Your task to perform on an android device: find which apps use the phone's location Image 0: 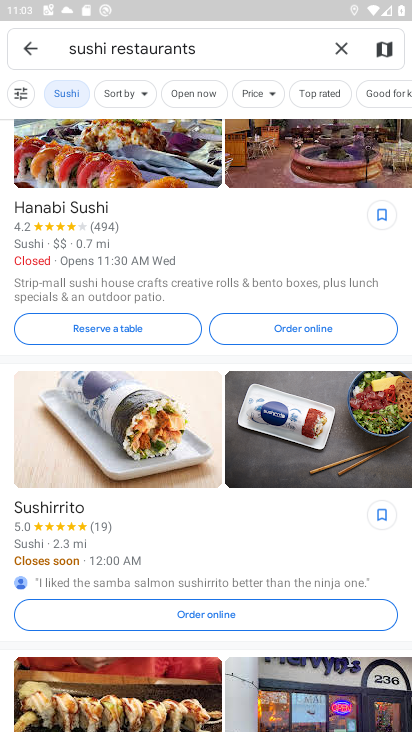
Step 0: press home button
Your task to perform on an android device: find which apps use the phone's location Image 1: 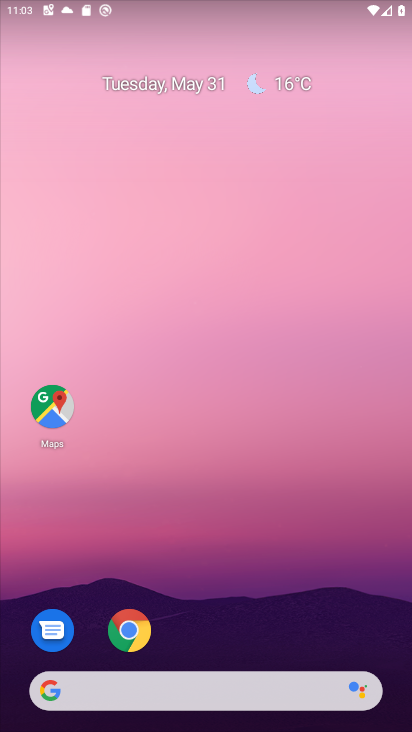
Step 1: drag from (307, 549) to (298, 132)
Your task to perform on an android device: find which apps use the phone's location Image 2: 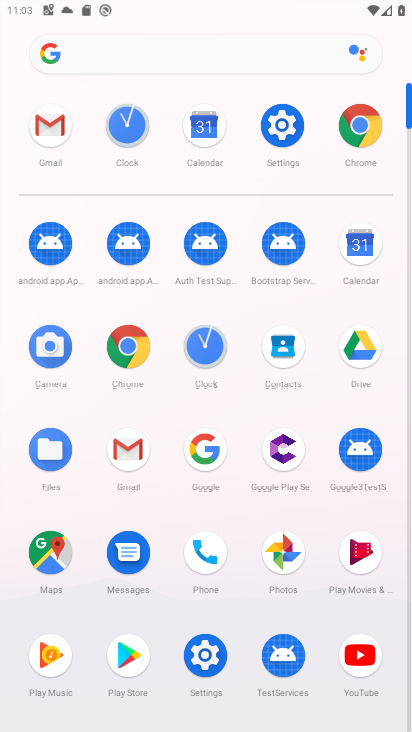
Step 2: click (273, 131)
Your task to perform on an android device: find which apps use the phone's location Image 3: 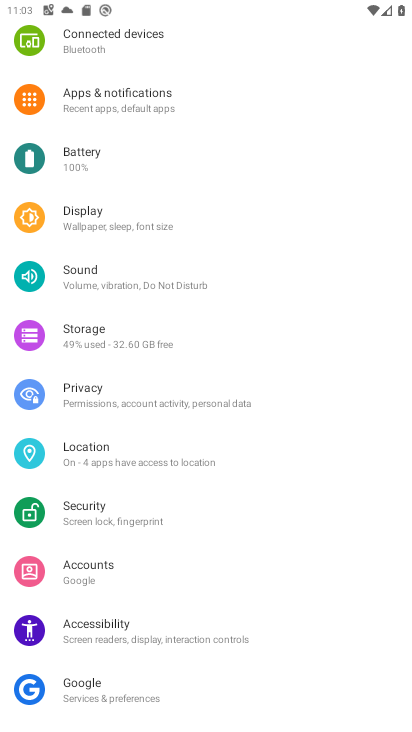
Step 3: drag from (216, 562) to (303, 238)
Your task to perform on an android device: find which apps use the phone's location Image 4: 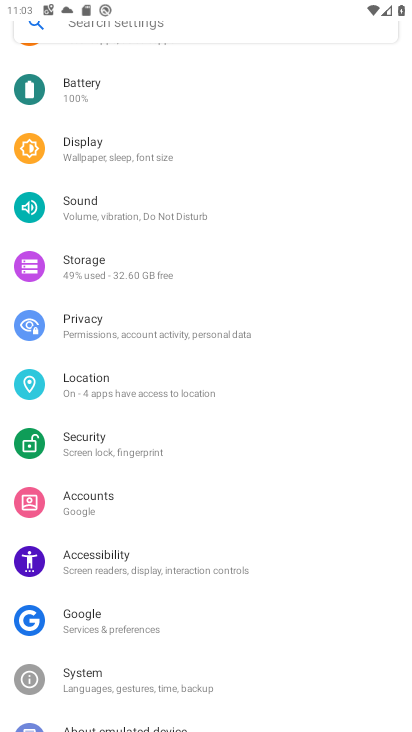
Step 4: click (95, 390)
Your task to perform on an android device: find which apps use the phone's location Image 5: 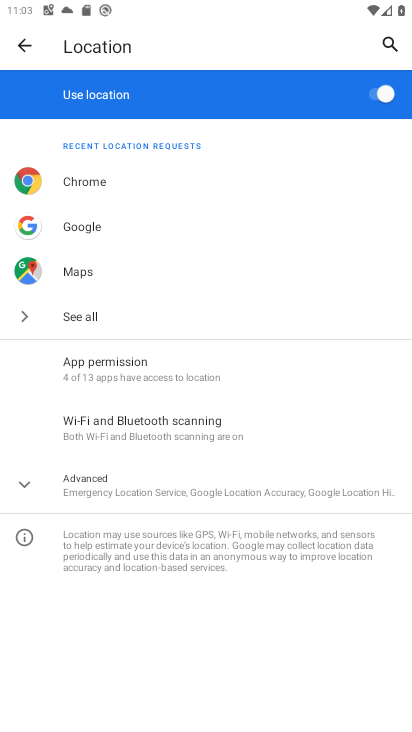
Step 5: click (95, 484)
Your task to perform on an android device: find which apps use the phone's location Image 6: 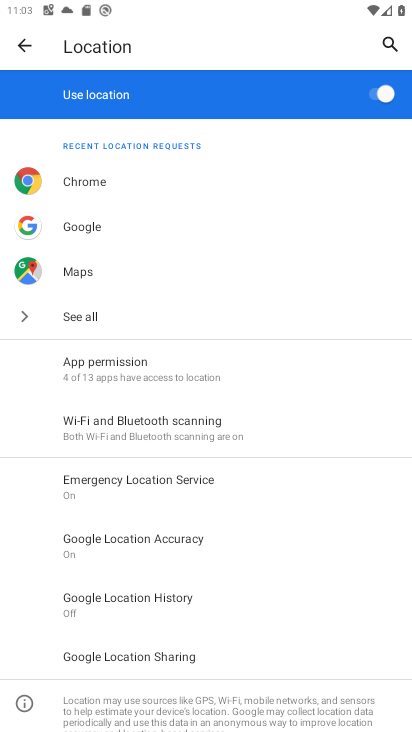
Step 6: click (107, 362)
Your task to perform on an android device: find which apps use the phone's location Image 7: 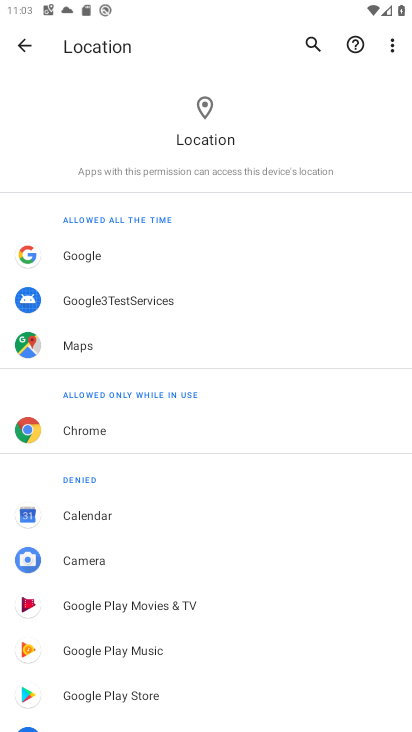
Step 7: task complete